Your task to perform on an android device: open chrome privacy settings Image 0: 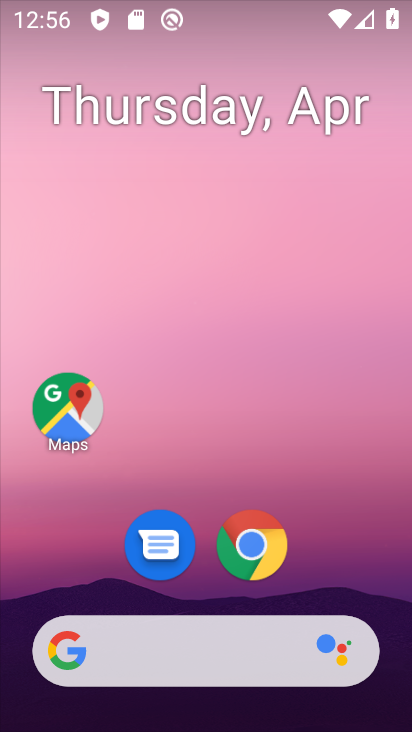
Step 0: drag from (144, 631) to (272, 56)
Your task to perform on an android device: open chrome privacy settings Image 1: 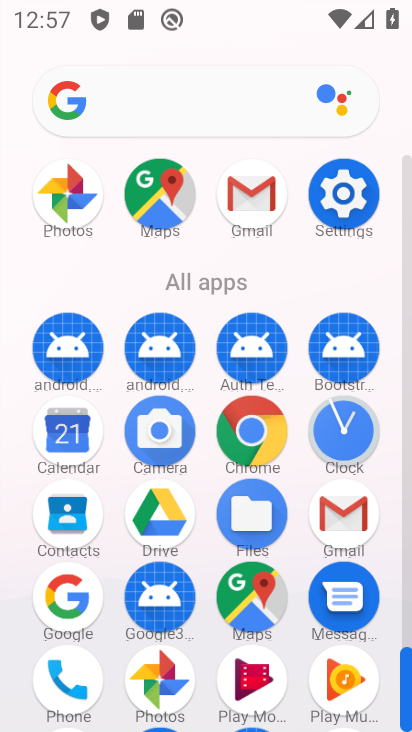
Step 1: click (263, 443)
Your task to perform on an android device: open chrome privacy settings Image 2: 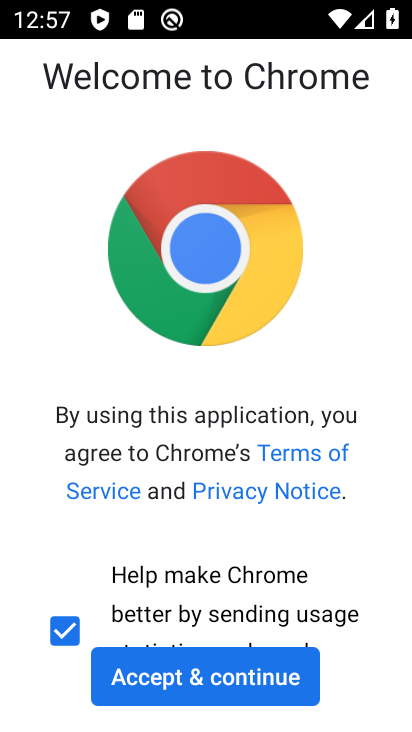
Step 2: click (180, 674)
Your task to perform on an android device: open chrome privacy settings Image 3: 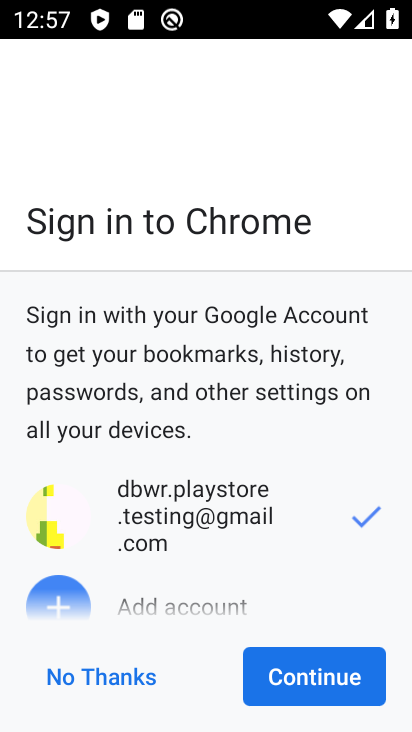
Step 3: click (292, 681)
Your task to perform on an android device: open chrome privacy settings Image 4: 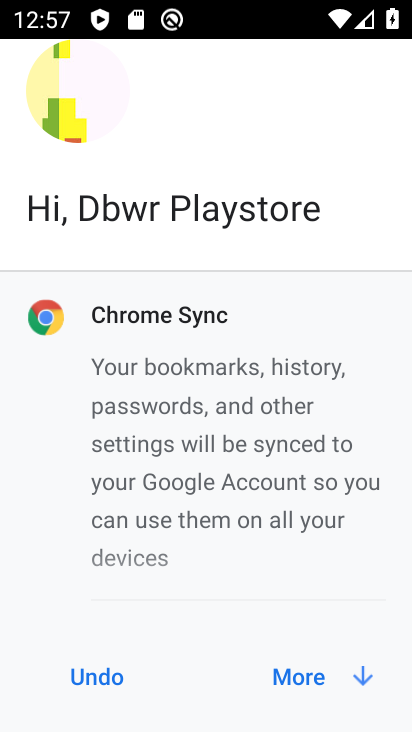
Step 4: click (292, 682)
Your task to perform on an android device: open chrome privacy settings Image 5: 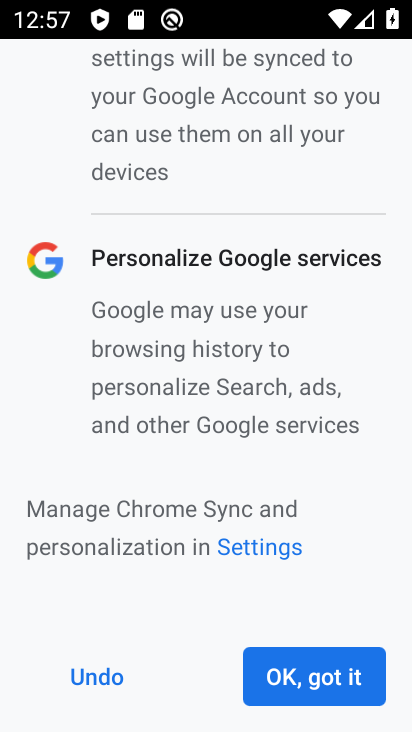
Step 5: click (292, 682)
Your task to perform on an android device: open chrome privacy settings Image 6: 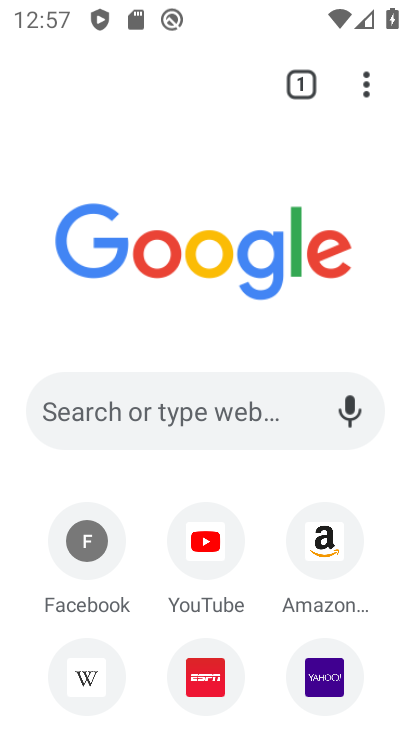
Step 6: click (359, 94)
Your task to perform on an android device: open chrome privacy settings Image 7: 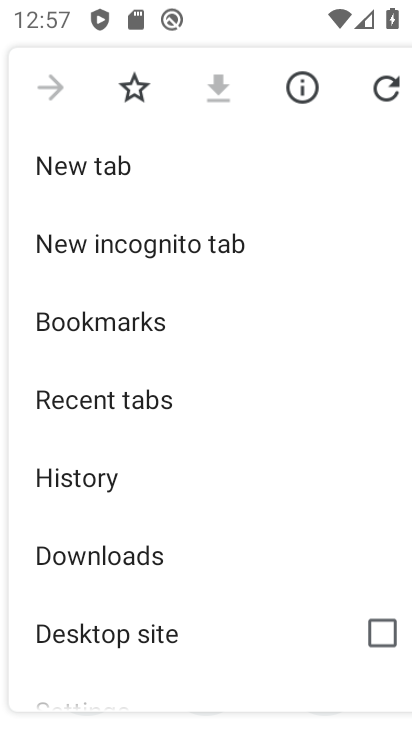
Step 7: drag from (148, 608) to (344, 136)
Your task to perform on an android device: open chrome privacy settings Image 8: 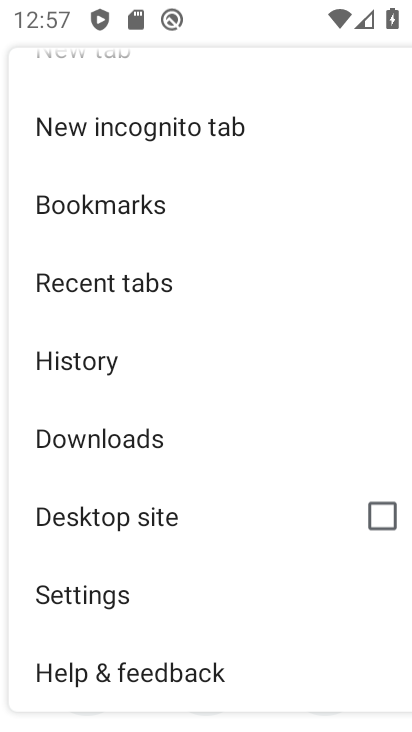
Step 8: click (80, 597)
Your task to perform on an android device: open chrome privacy settings Image 9: 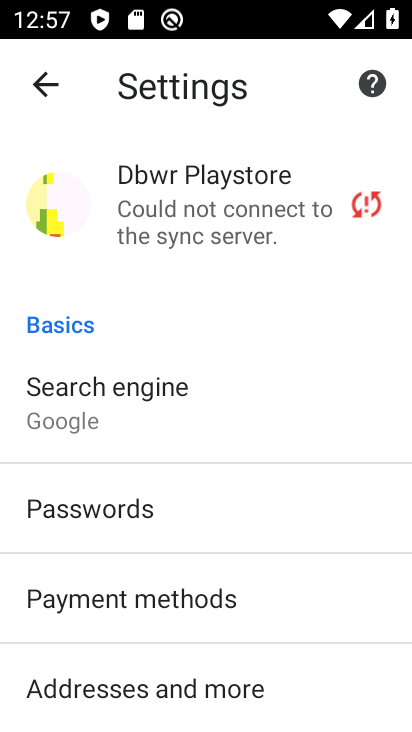
Step 9: drag from (138, 652) to (343, 170)
Your task to perform on an android device: open chrome privacy settings Image 10: 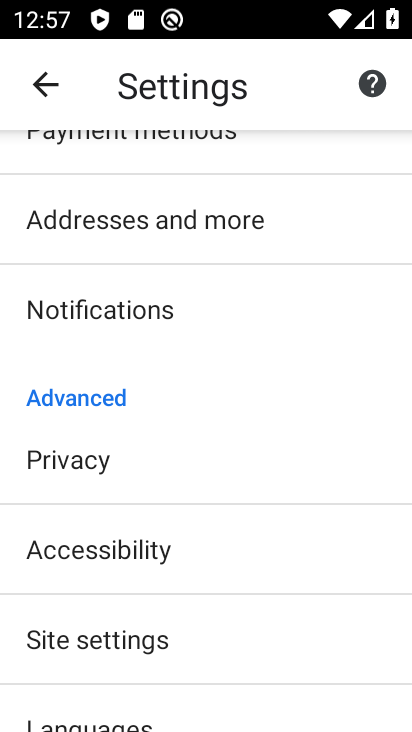
Step 10: click (80, 463)
Your task to perform on an android device: open chrome privacy settings Image 11: 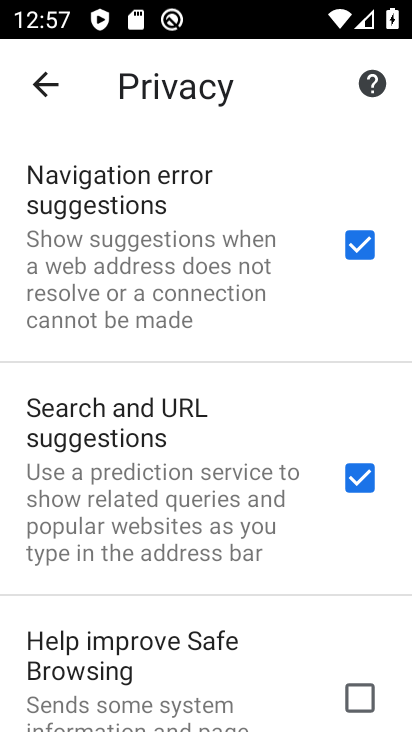
Step 11: task complete